Your task to perform on an android device: change the clock display to show seconds Image 0: 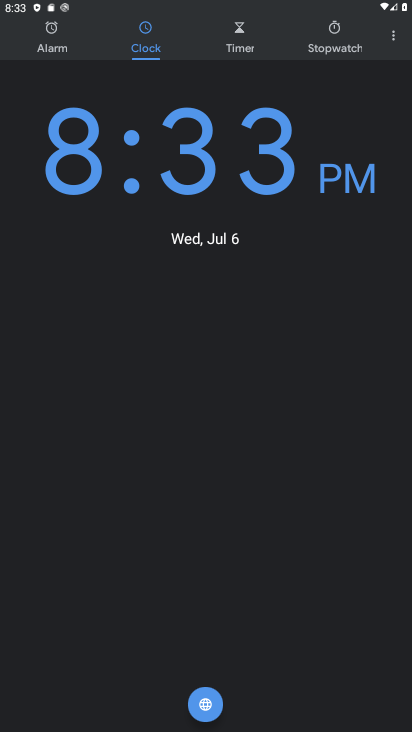
Step 0: press home button
Your task to perform on an android device: change the clock display to show seconds Image 1: 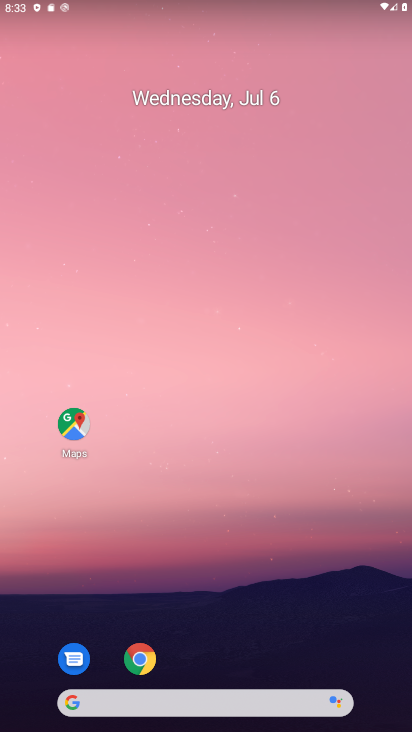
Step 1: drag from (339, 609) to (350, 76)
Your task to perform on an android device: change the clock display to show seconds Image 2: 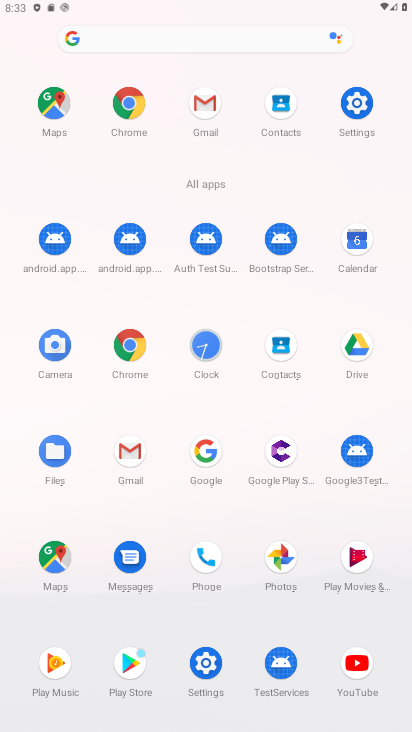
Step 2: click (218, 356)
Your task to perform on an android device: change the clock display to show seconds Image 3: 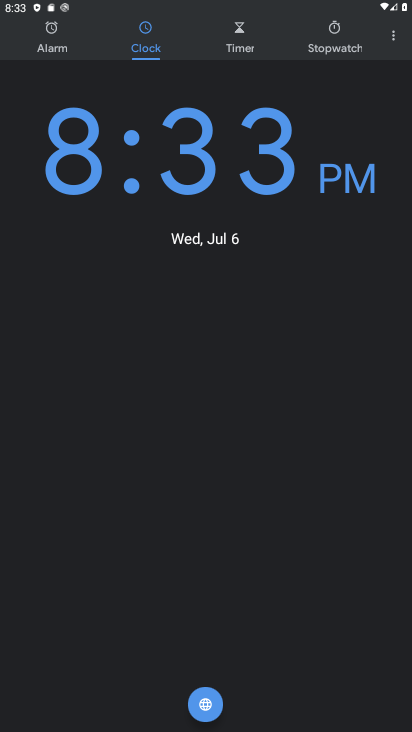
Step 3: click (391, 37)
Your task to perform on an android device: change the clock display to show seconds Image 4: 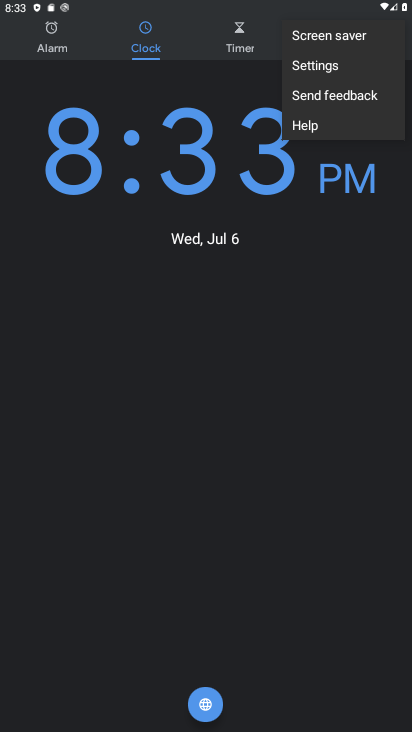
Step 4: click (327, 67)
Your task to perform on an android device: change the clock display to show seconds Image 5: 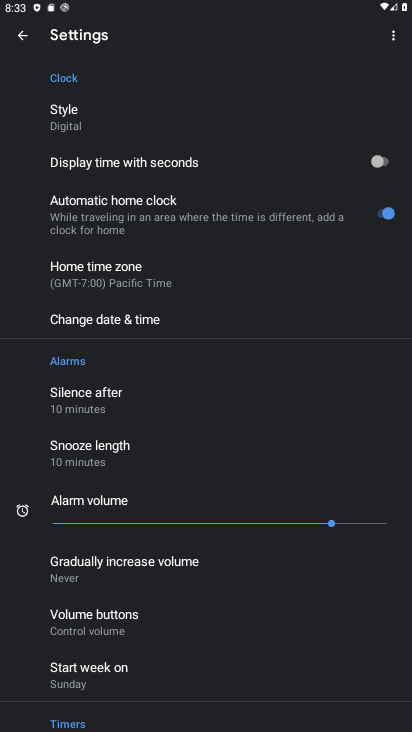
Step 5: drag from (278, 578) to (292, 423)
Your task to perform on an android device: change the clock display to show seconds Image 6: 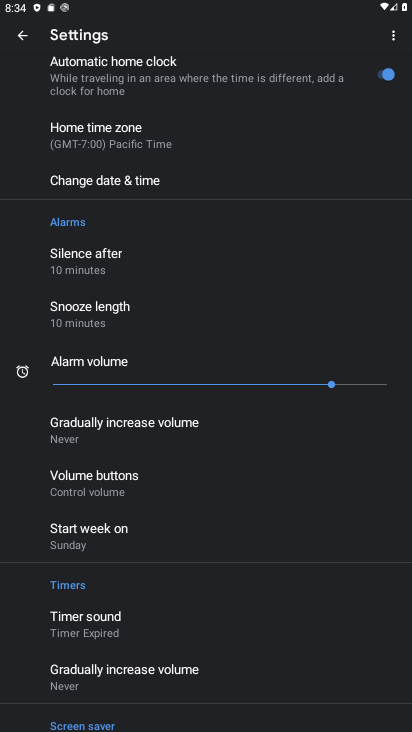
Step 6: drag from (288, 577) to (315, 296)
Your task to perform on an android device: change the clock display to show seconds Image 7: 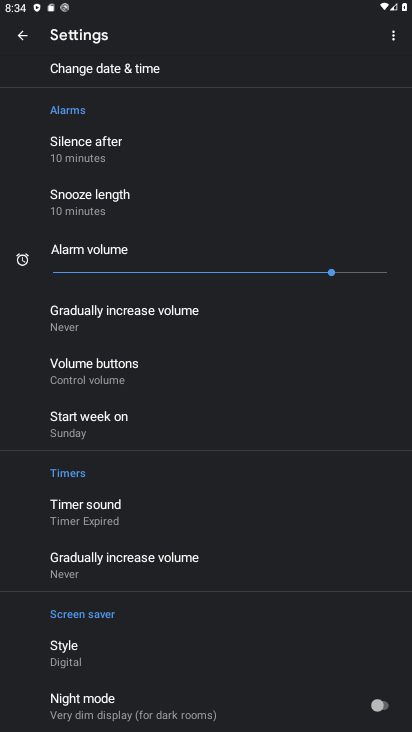
Step 7: drag from (283, 612) to (286, 387)
Your task to perform on an android device: change the clock display to show seconds Image 8: 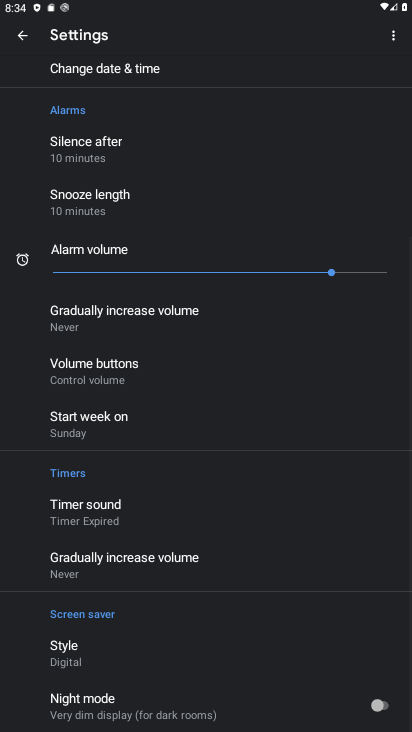
Step 8: drag from (291, 320) to (300, 406)
Your task to perform on an android device: change the clock display to show seconds Image 9: 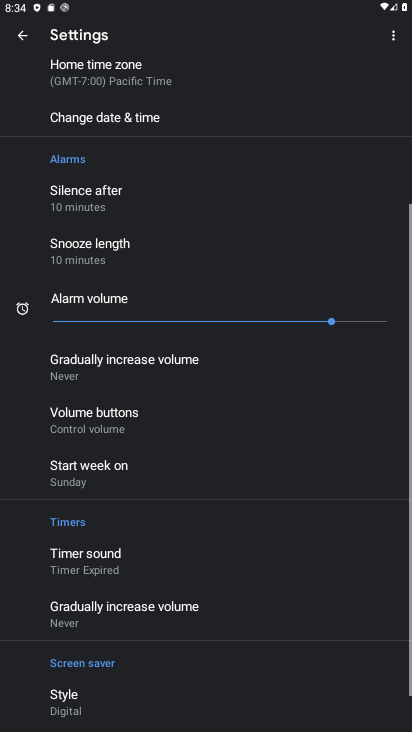
Step 9: drag from (275, 248) to (275, 364)
Your task to perform on an android device: change the clock display to show seconds Image 10: 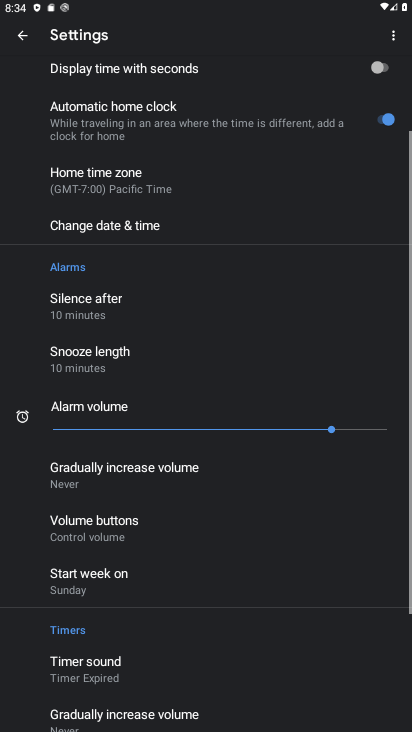
Step 10: drag from (271, 253) to (268, 362)
Your task to perform on an android device: change the clock display to show seconds Image 11: 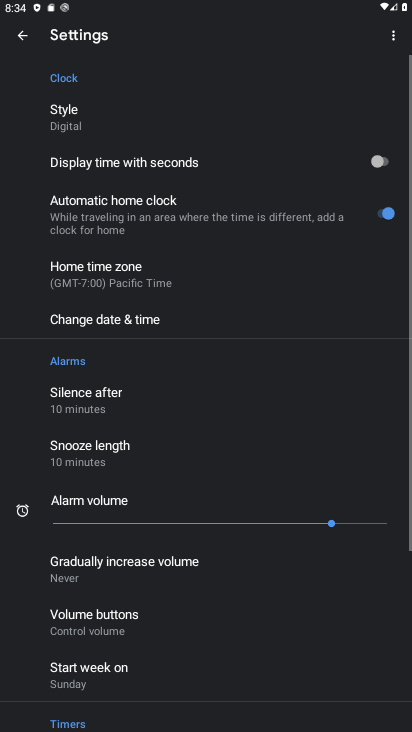
Step 11: drag from (277, 207) to (286, 341)
Your task to perform on an android device: change the clock display to show seconds Image 12: 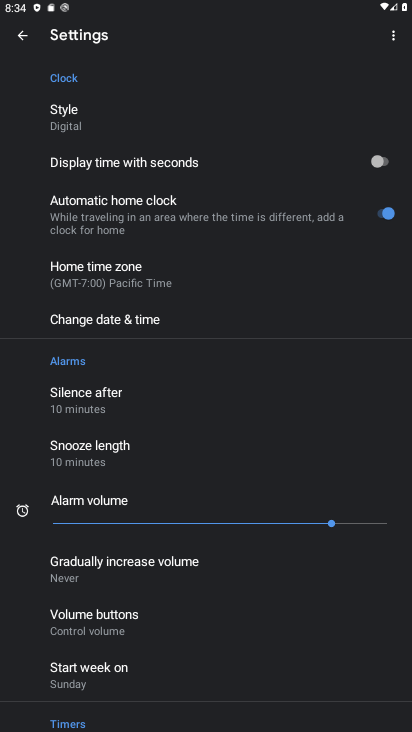
Step 12: click (358, 161)
Your task to perform on an android device: change the clock display to show seconds Image 13: 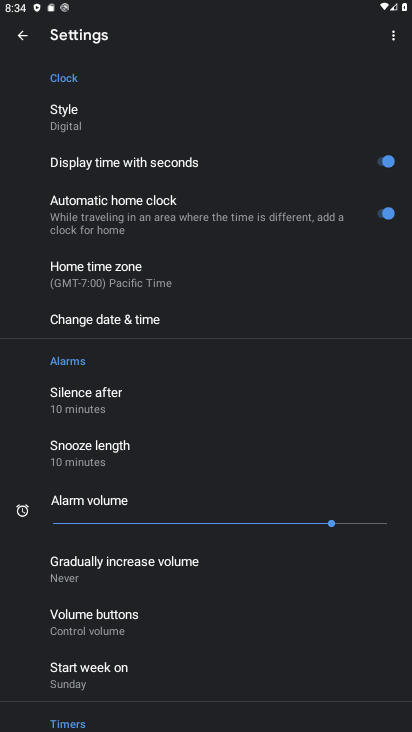
Step 13: task complete